Your task to perform on an android device: remove spam from my inbox in the gmail app Image 0: 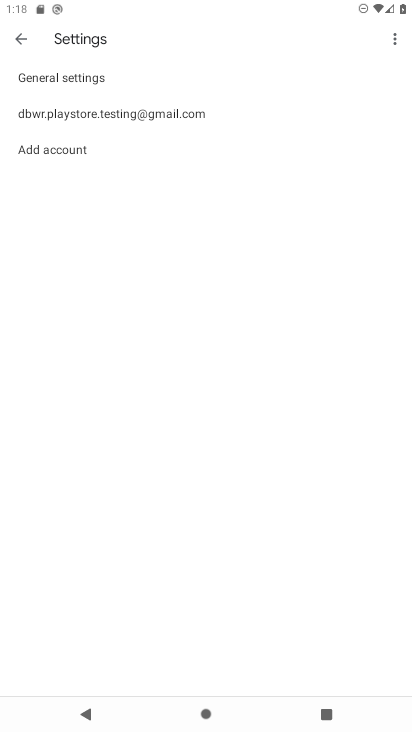
Step 0: press home button
Your task to perform on an android device: remove spam from my inbox in the gmail app Image 1: 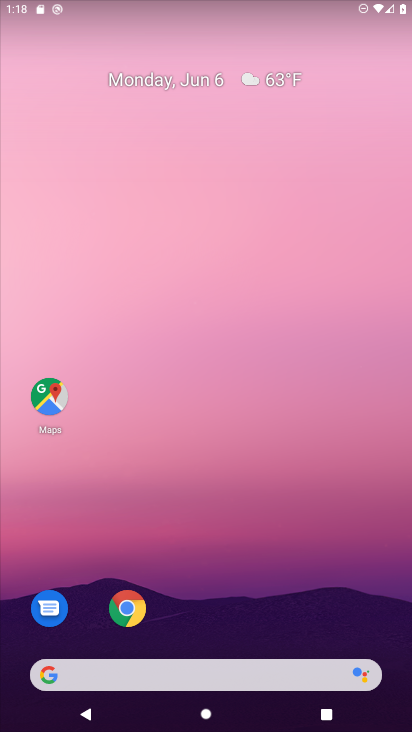
Step 1: drag from (235, 635) to (190, 123)
Your task to perform on an android device: remove spam from my inbox in the gmail app Image 2: 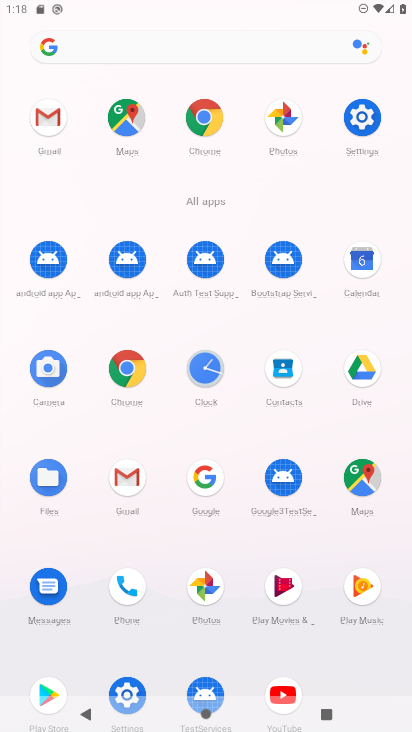
Step 2: click (45, 119)
Your task to perform on an android device: remove spam from my inbox in the gmail app Image 3: 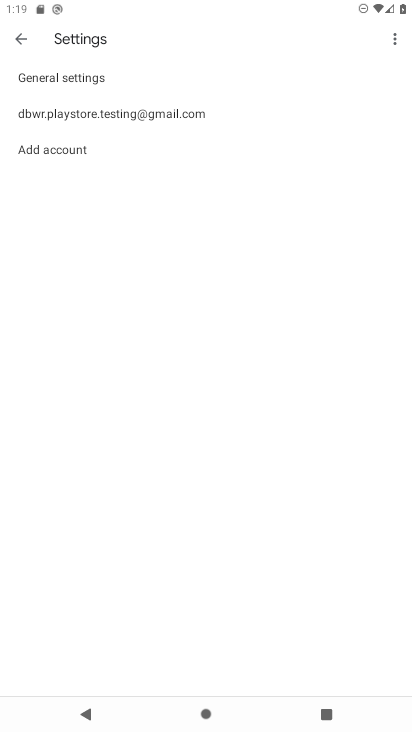
Step 3: click (24, 37)
Your task to perform on an android device: remove spam from my inbox in the gmail app Image 4: 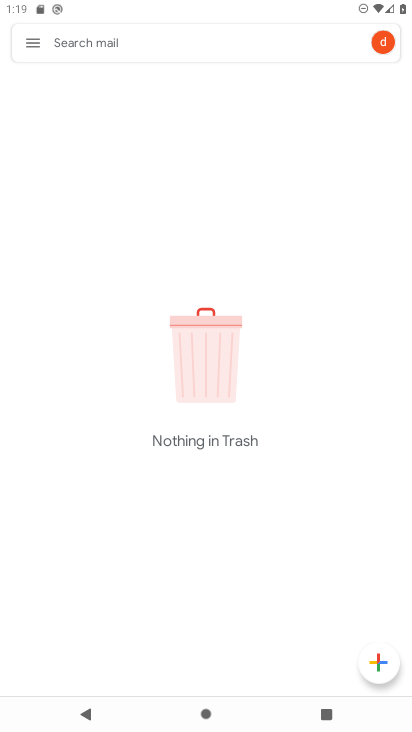
Step 4: click (24, 37)
Your task to perform on an android device: remove spam from my inbox in the gmail app Image 5: 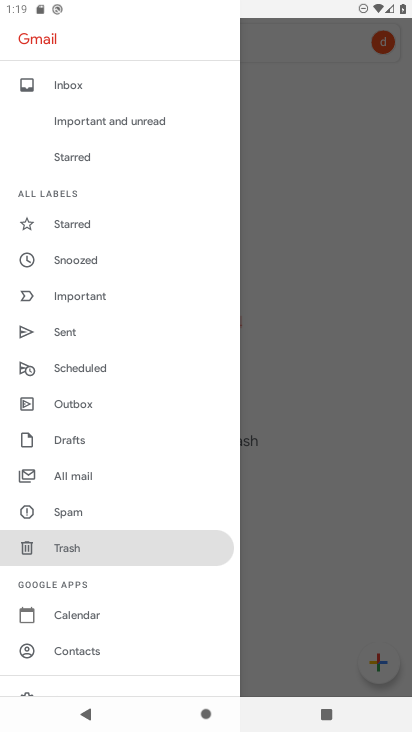
Step 5: click (141, 512)
Your task to perform on an android device: remove spam from my inbox in the gmail app Image 6: 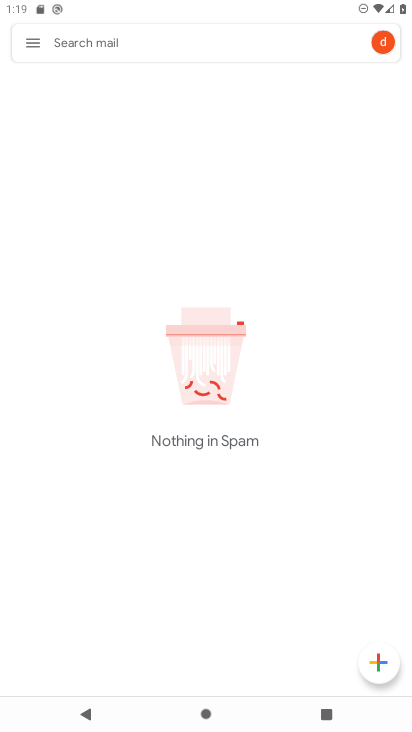
Step 6: task complete